Your task to perform on an android device: Open display settings Image 0: 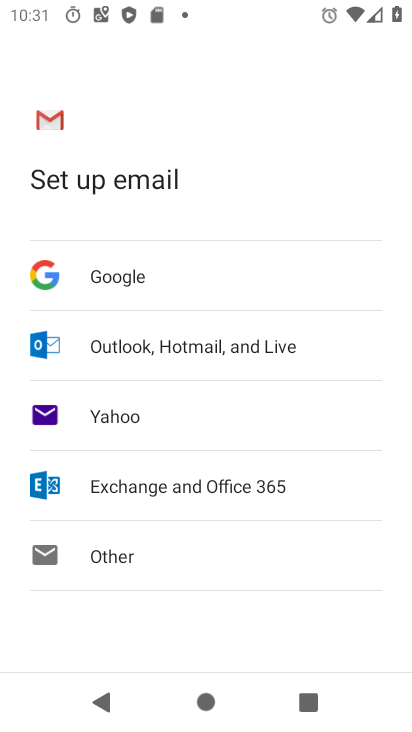
Step 0: press home button
Your task to perform on an android device: Open display settings Image 1: 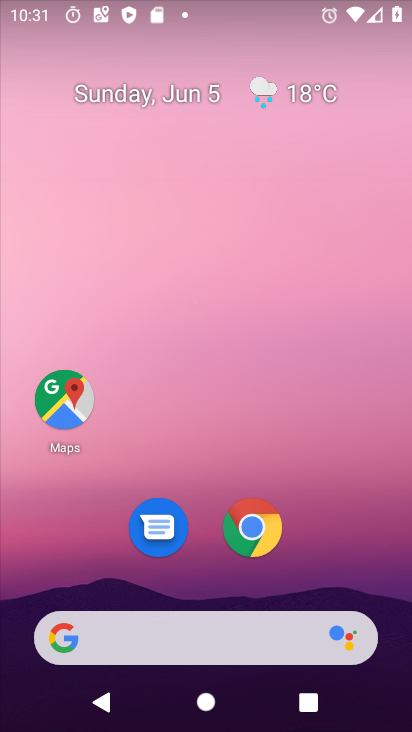
Step 1: drag from (357, 587) to (279, 106)
Your task to perform on an android device: Open display settings Image 2: 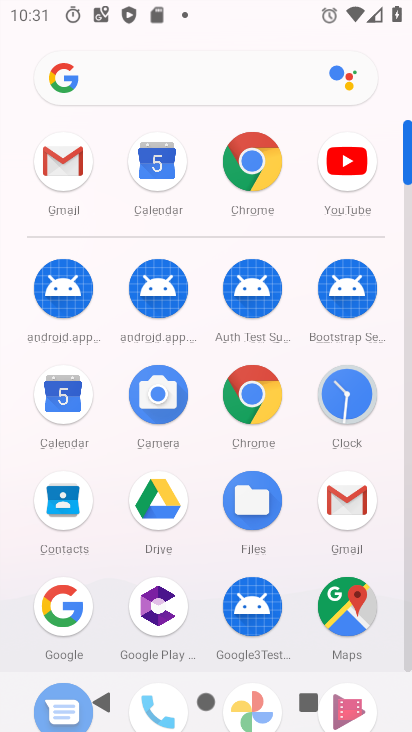
Step 2: drag from (385, 635) to (367, 160)
Your task to perform on an android device: Open display settings Image 3: 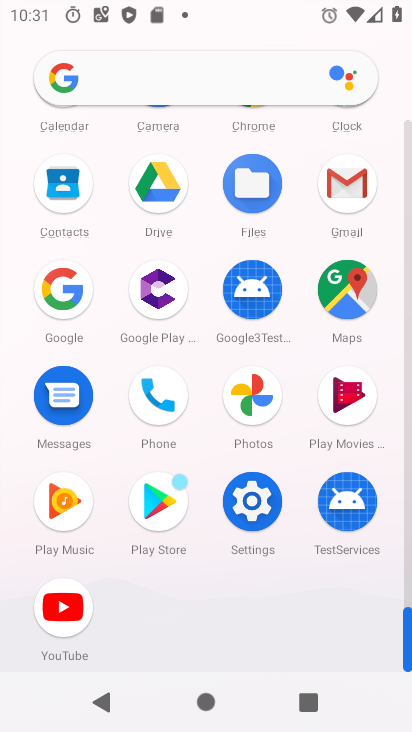
Step 3: click (258, 509)
Your task to perform on an android device: Open display settings Image 4: 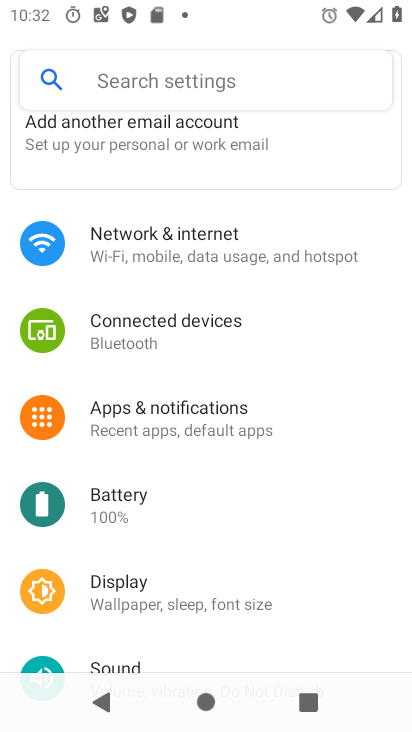
Step 4: click (127, 588)
Your task to perform on an android device: Open display settings Image 5: 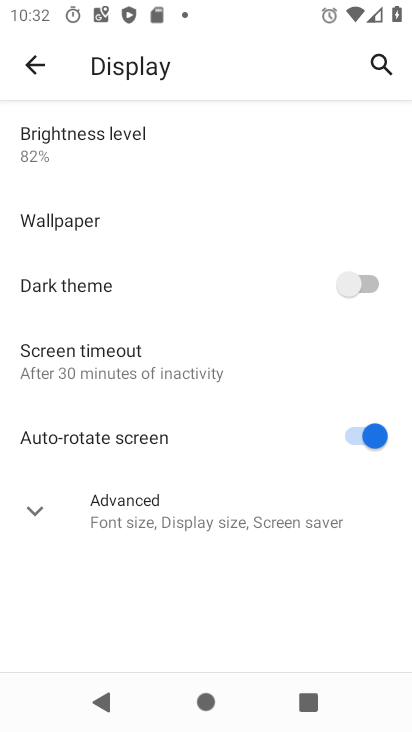
Step 5: task complete